Your task to perform on an android device: toggle notifications settings in the gmail app Image 0: 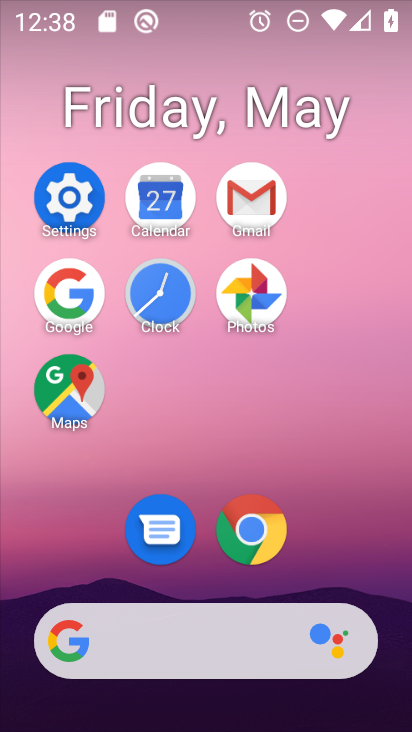
Step 0: click (226, 218)
Your task to perform on an android device: toggle notifications settings in the gmail app Image 1: 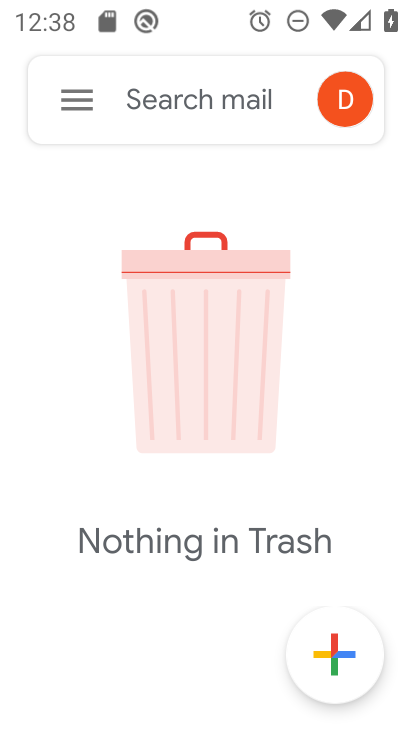
Step 1: click (21, 85)
Your task to perform on an android device: toggle notifications settings in the gmail app Image 2: 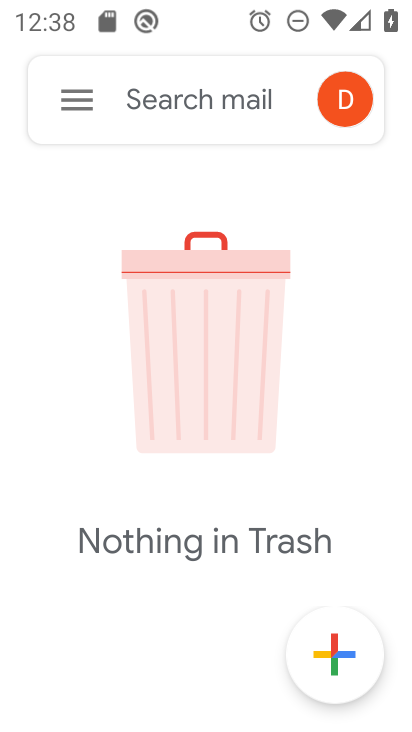
Step 2: click (60, 105)
Your task to perform on an android device: toggle notifications settings in the gmail app Image 3: 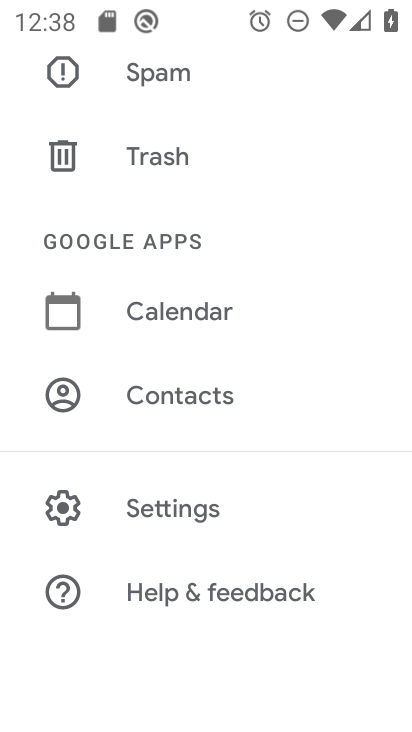
Step 3: click (330, 466)
Your task to perform on an android device: toggle notifications settings in the gmail app Image 4: 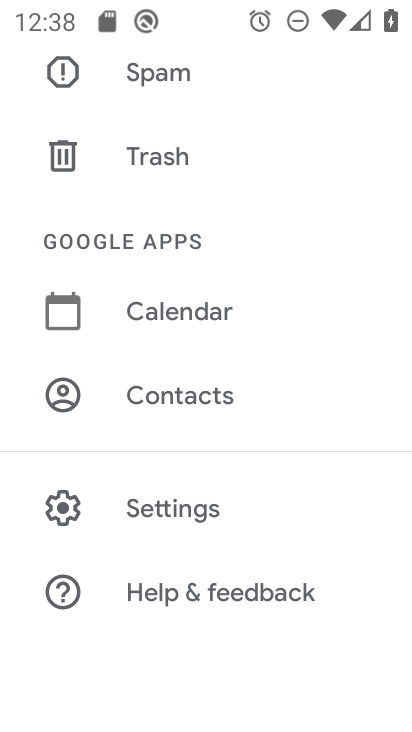
Step 4: click (225, 508)
Your task to perform on an android device: toggle notifications settings in the gmail app Image 5: 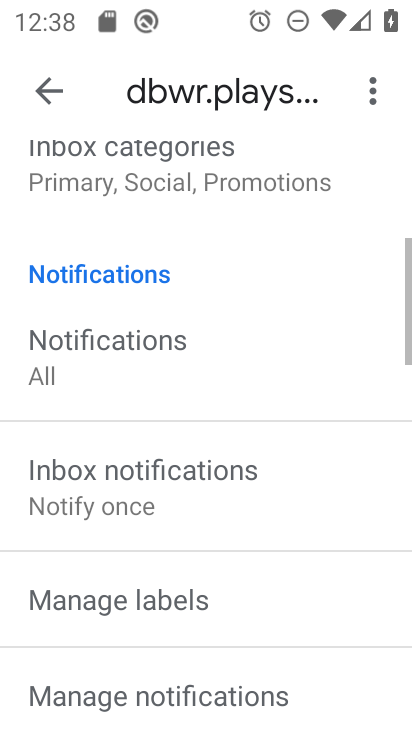
Step 5: click (275, 374)
Your task to perform on an android device: toggle notifications settings in the gmail app Image 6: 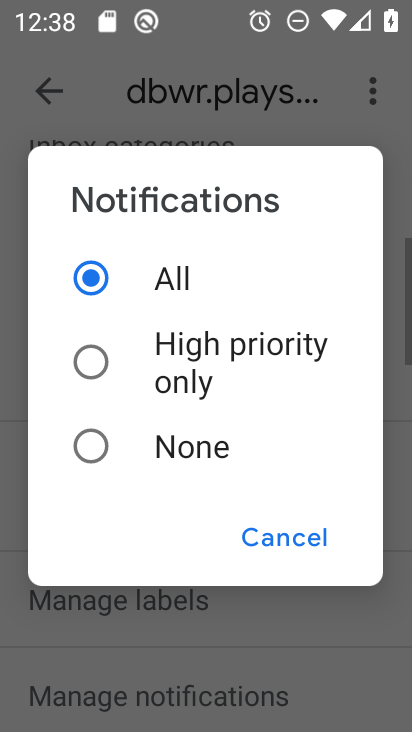
Step 6: click (253, 350)
Your task to perform on an android device: toggle notifications settings in the gmail app Image 7: 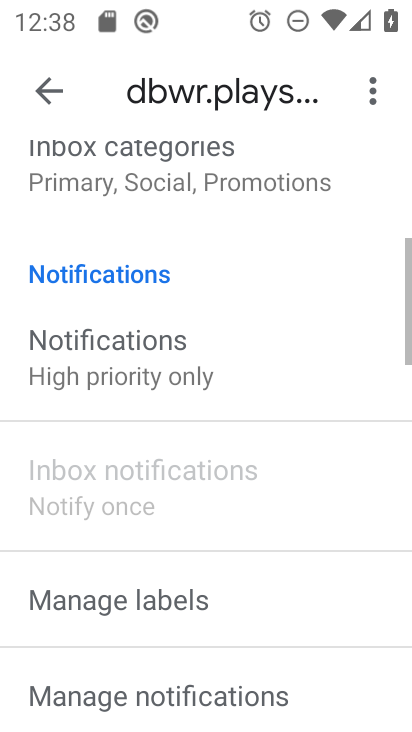
Step 7: task complete